Your task to perform on an android device: Go to accessibility settings Image 0: 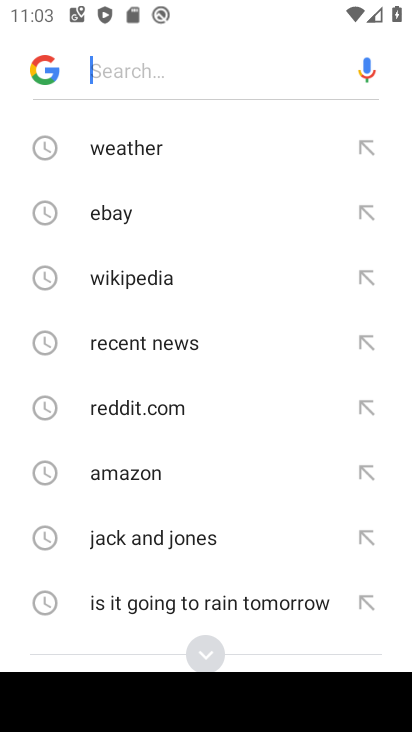
Step 0: press back button
Your task to perform on an android device: Go to accessibility settings Image 1: 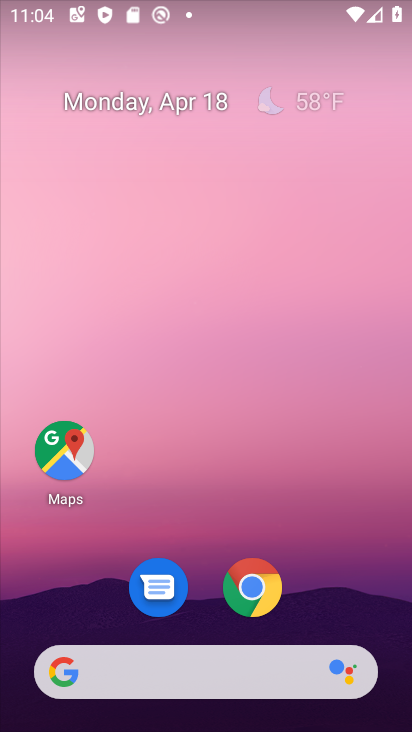
Step 1: drag from (174, 642) to (304, 31)
Your task to perform on an android device: Go to accessibility settings Image 2: 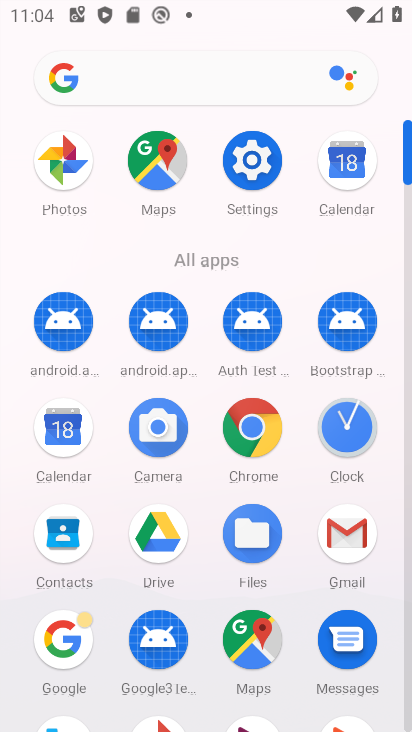
Step 2: drag from (268, 680) to (327, 163)
Your task to perform on an android device: Go to accessibility settings Image 3: 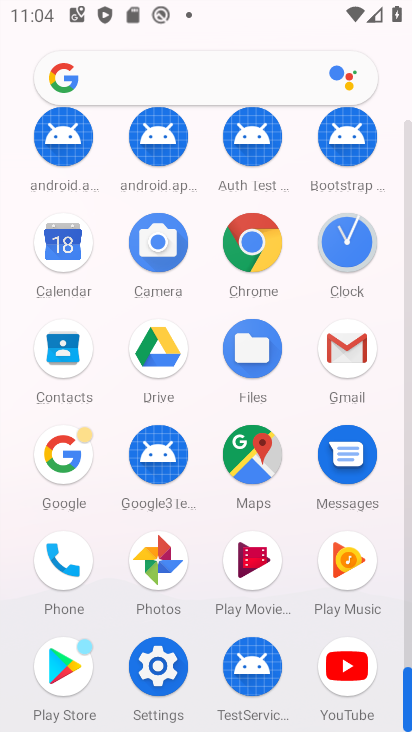
Step 3: click (155, 665)
Your task to perform on an android device: Go to accessibility settings Image 4: 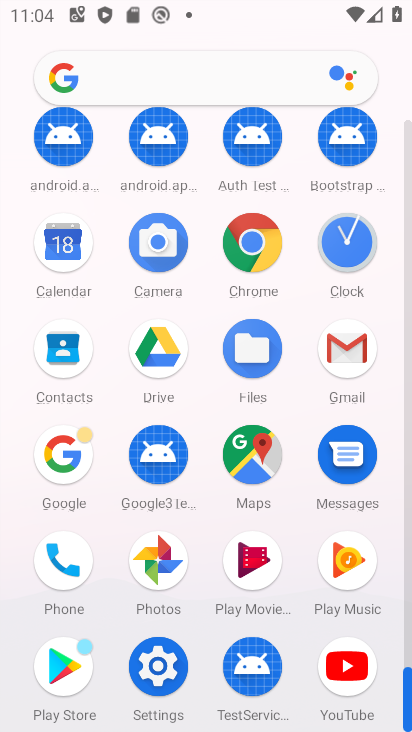
Step 4: click (147, 681)
Your task to perform on an android device: Go to accessibility settings Image 5: 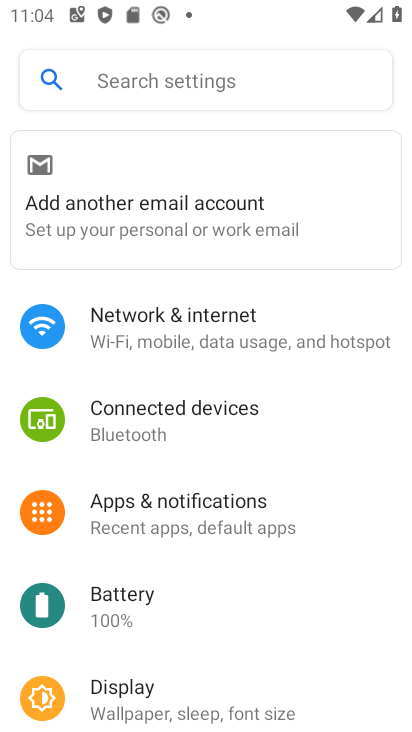
Step 5: drag from (148, 607) to (283, 240)
Your task to perform on an android device: Go to accessibility settings Image 6: 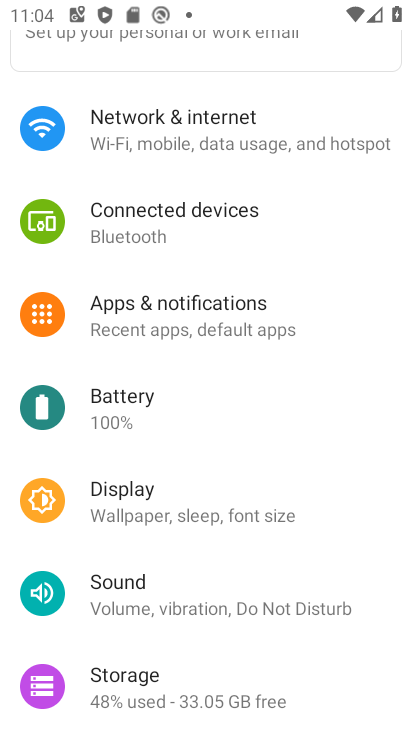
Step 6: drag from (205, 667) to (286, 195)
Your task to perform on an android device: Go to accessibility settings Image 7: 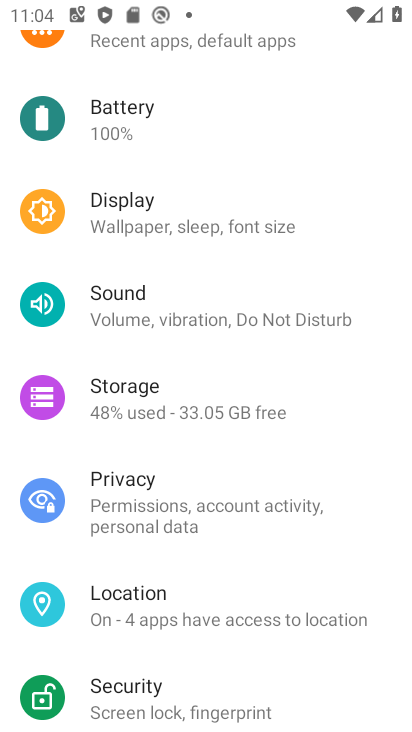
Step 7: drag from (198, 558) to (297, 231)
Your task to perform on an android device: Go to accessibility settings Image 8: 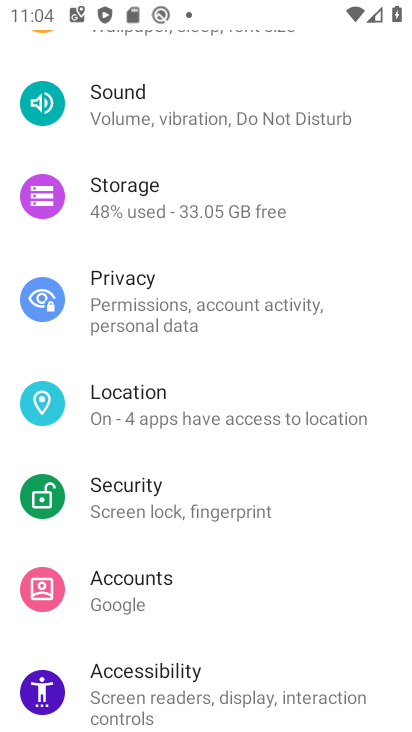
Step 8: click (167, 684)
Your task to perform on an android device: Go to accessibility settings Image 9: 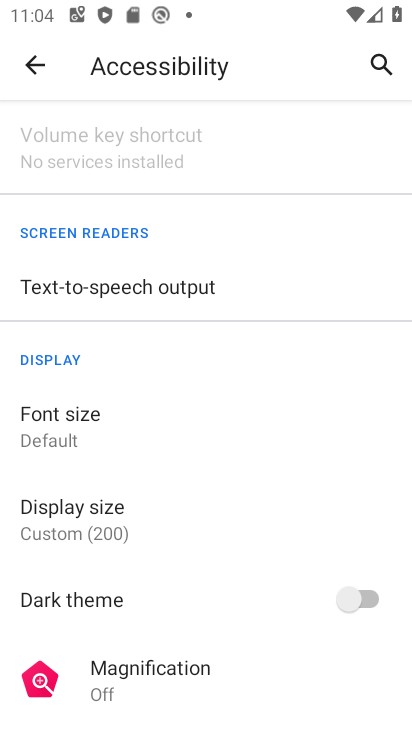
Step 9: task complete